Your task to perform on an android device: turn off location Image 0: 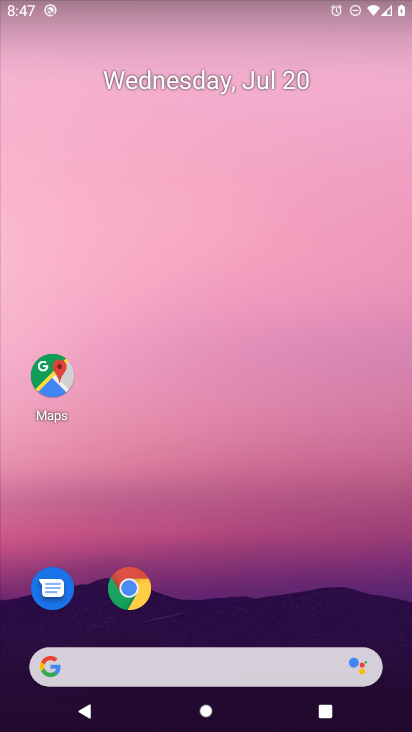
Step 0: drag from (95, 582) to (325, 3)
Your task to perform on an android device: turn off location Image 1: 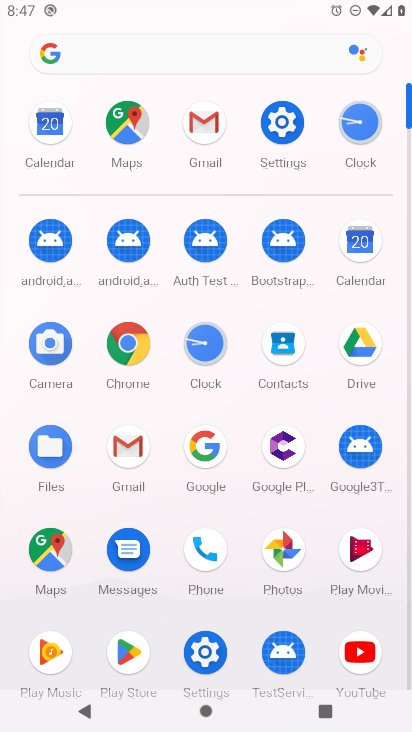
Step 1: click (209, 630)
Your task to perform on an android device: turn off location Image 2: 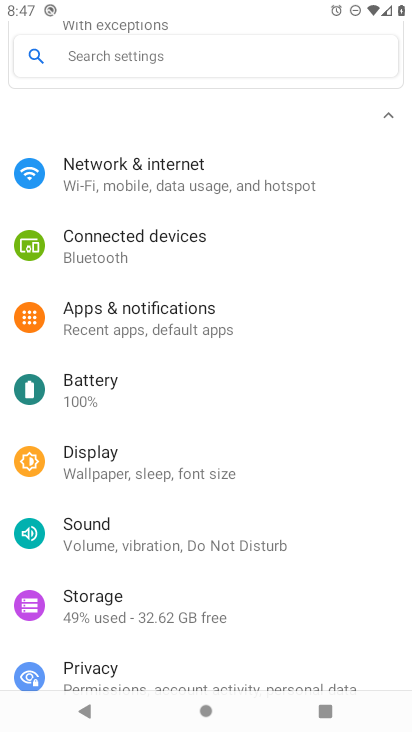
Step 2: drag from (229, 648) to (272, 289)
Your task to perform on an android device: turn off location Image 3: 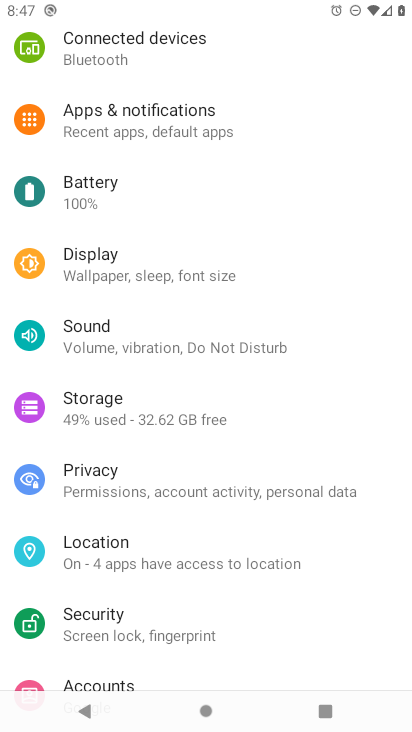
Step 3: click (126, 518)
Your task to perform on an android device: turn off location Image 4: 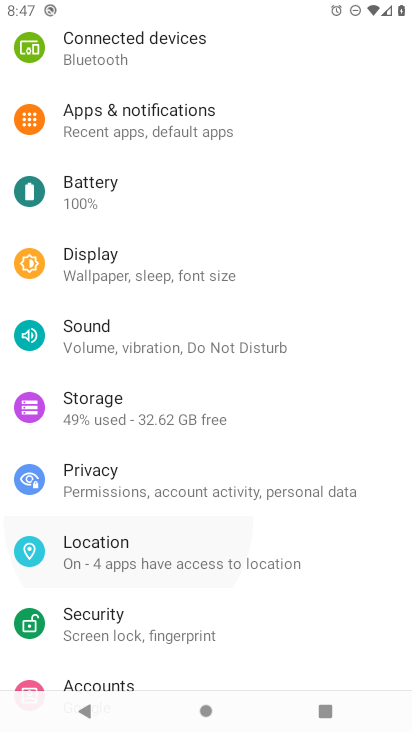
Step 4: click (113, 536)
Your task to perform on an android device: turn off location Image 5: 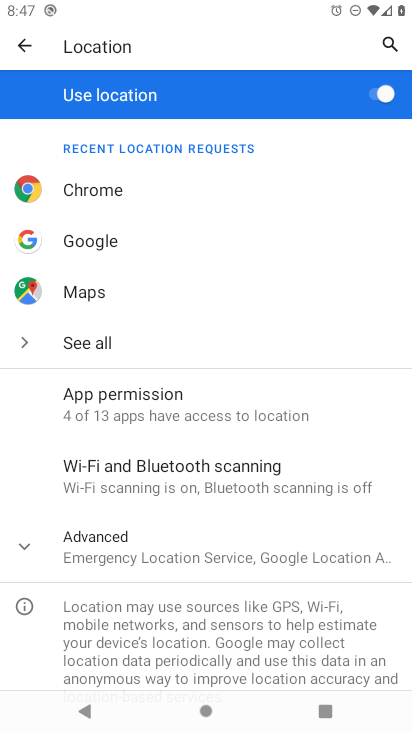
Step 5: click (394, 99)
Your task to perform on an android device: turn off location Image 6: 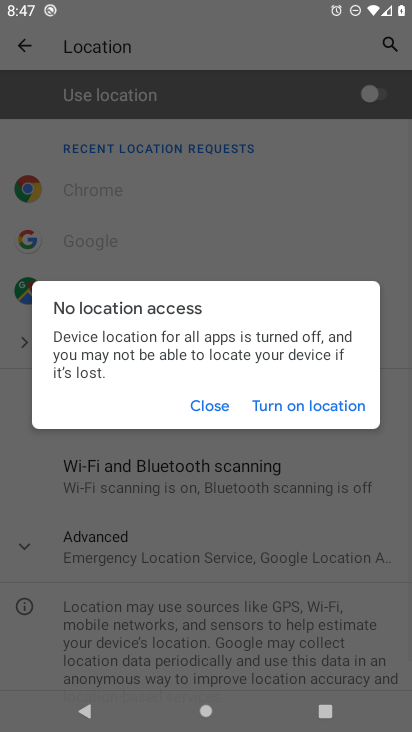
Step 6: task complete